Your task to perform on an android device: Open location settings Image 0: 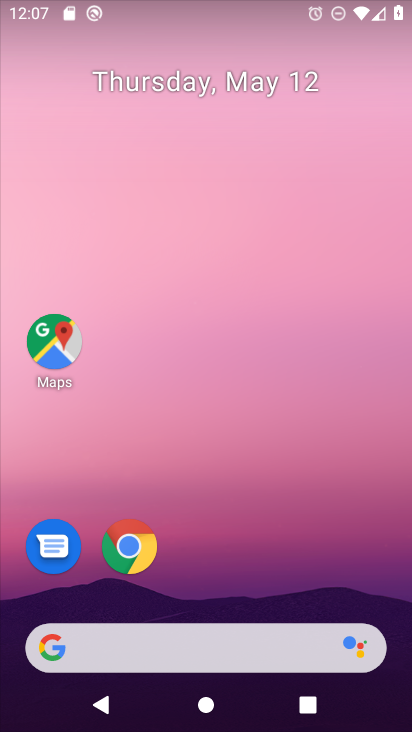
Step 0: drag from (386, 631) to (326, 74)
Your task to perform on an android device: Open location settings Image 1: 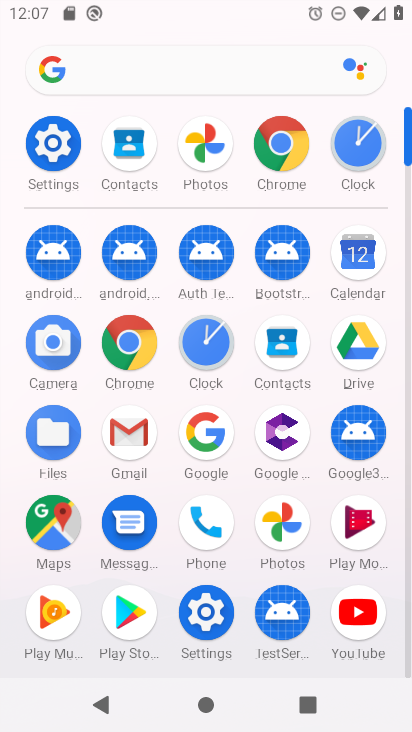
Step 1: click (209, 621)
Your task to perform on an android device: Open location settings Image 2: 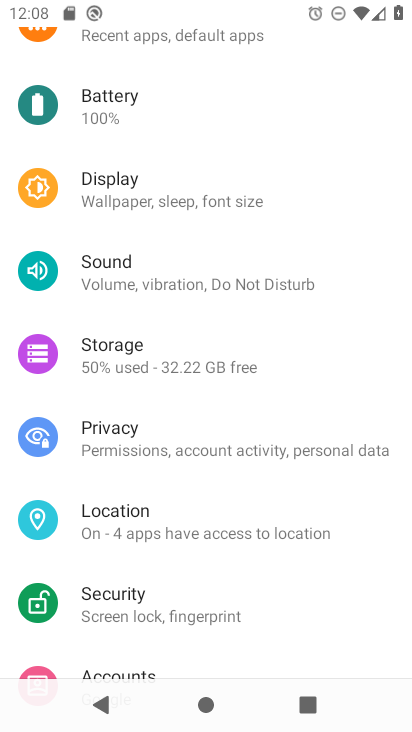
Step 2: click (142, 501)
Your task to perform on an android device: Open location settings Image 3: 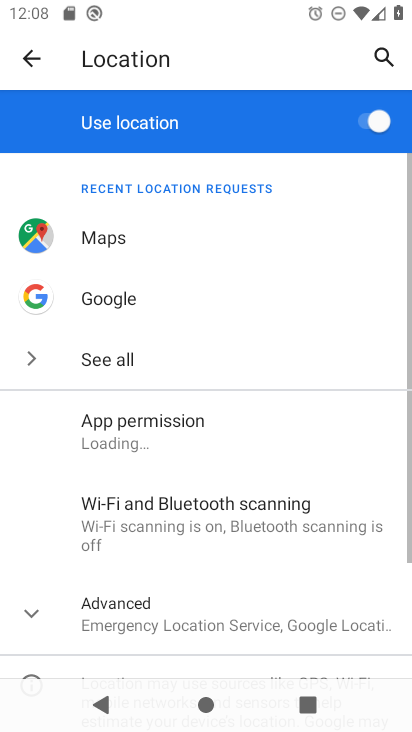
Step 3: task complete